Your task to perform on an android device: Turn on the flashlight Image 0: 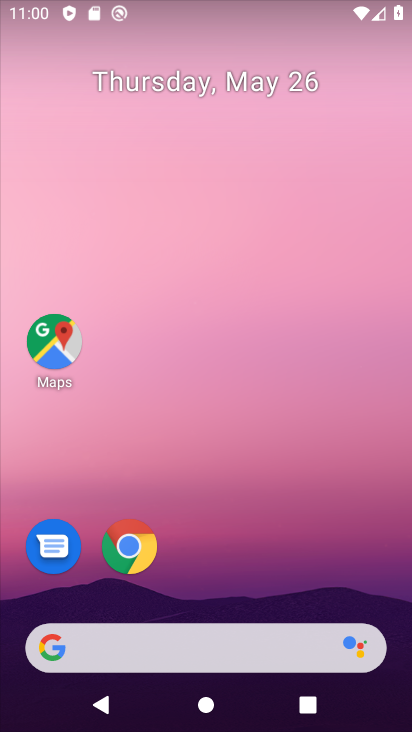
Step 0: drag from (238, 566) to (222, 96)
Your task to perform on an android device: Turn on the flashlight Image 1: 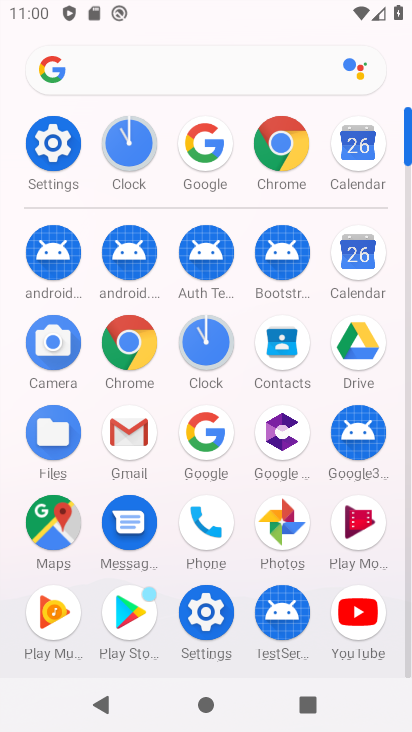
Step 1: click (52, 149)
Your task to perform on an android device: Turn on the flashlight Image 2: 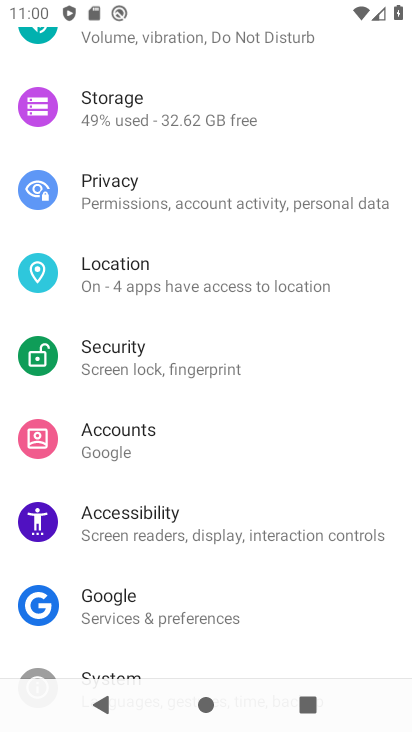
Step 2: drag from (188, 96) to (279, 578)
Your task to perform on an android device: Turn on the flashlight Image 3: 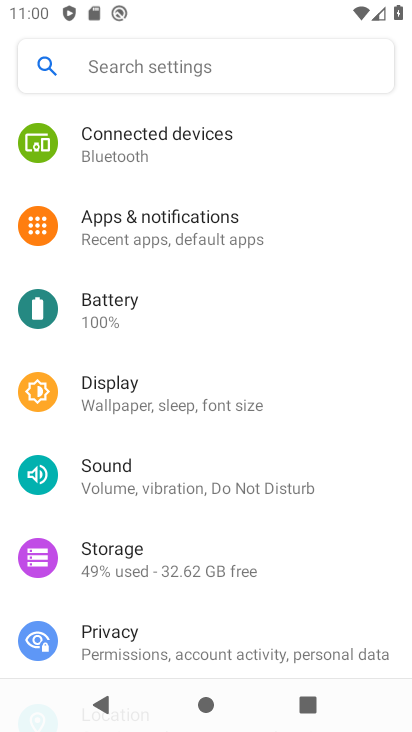
Step 3: click (182, 73)
Your task to perform on an android device: Turn on the flashlight Image 4: 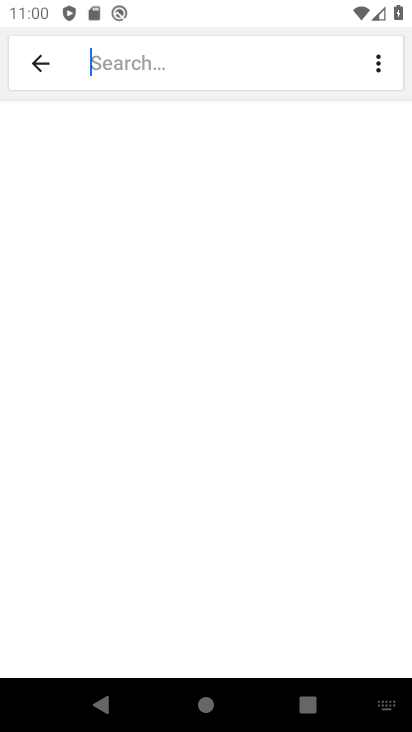
Step 4: type "flash"
Your task to perform on an android device: Turn on the flashlight Image 5: 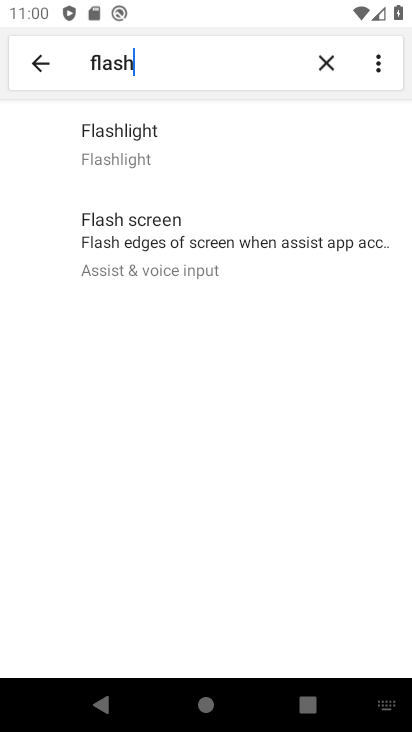
Step 5: task complete